Your task to perform on an android device: turn off location history Image 0: 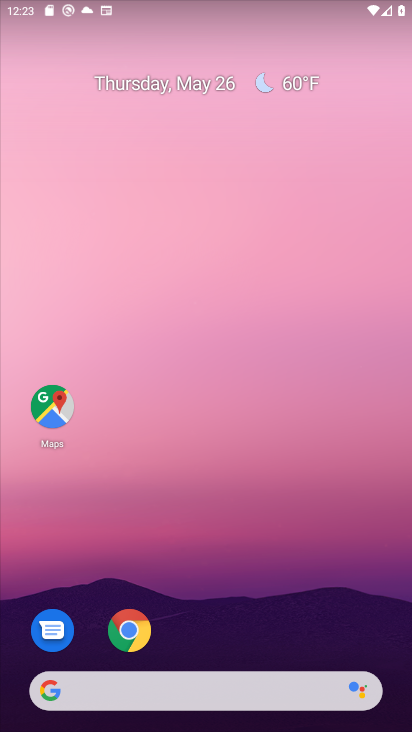
Step 0: drag from (314, 585) to (244, 143)
Your task to perform on an android device: turn off location history Image 1: 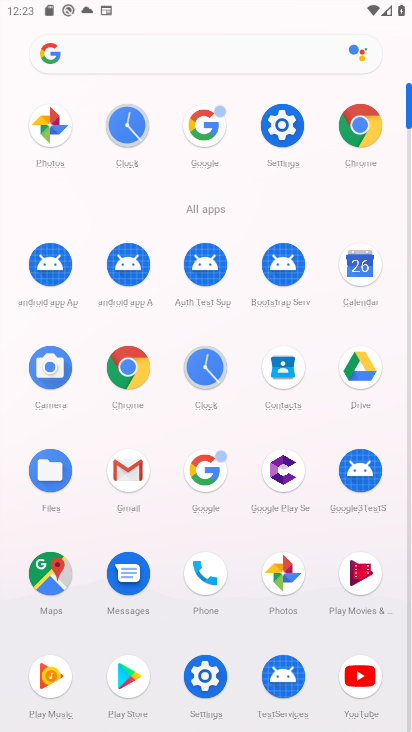
Step 1: click (274, 139)
Your task to perform on an android device: turn off location history Image 2: 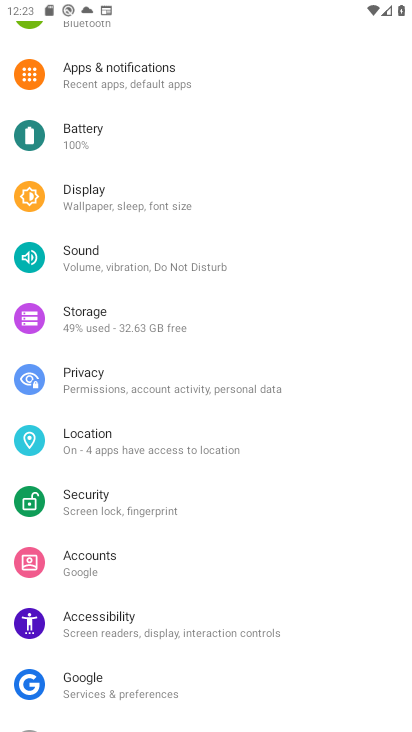
Step 2: click (117, 448)
Your task to perform on an android device: turn off location history Image 3: 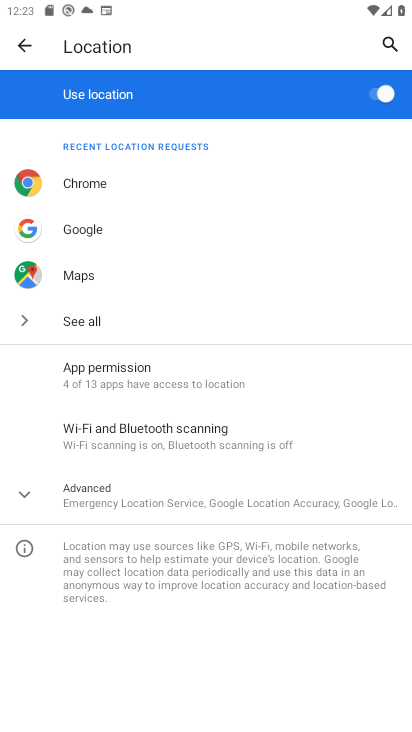
Step 3: drag from (175, 609) to (174, 183)
Your task to perform on an android device: turn off location history Image 4: 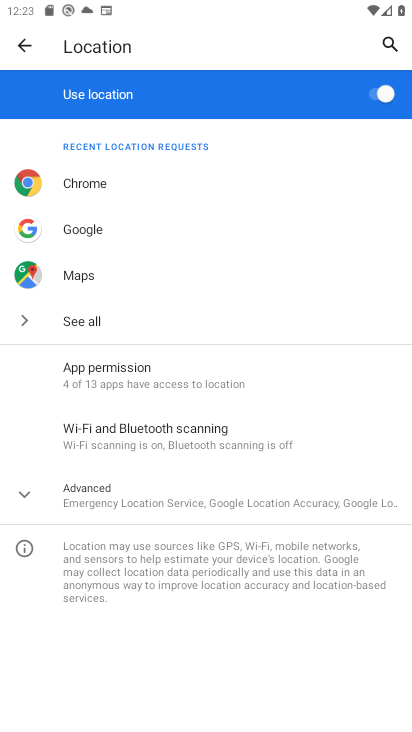
Step 4: click (86, 498)
Your task to perform on an android device: turn off location history Image 5: 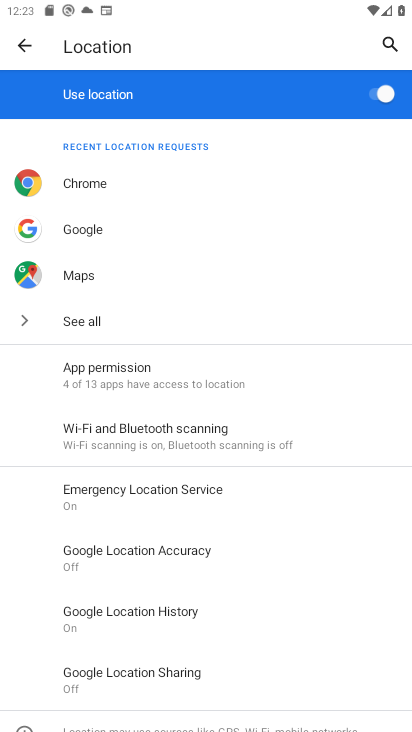
Step 5: drag from (225, 603) to (262, 308)
Your task to perform on an android device: turn off location history Image 6: 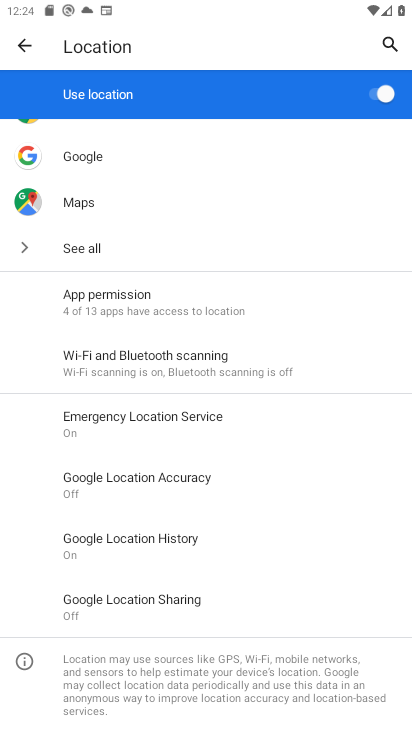
Step 6: click (148, 556)
Your task to perform on an android device: turn off location history Image 7: 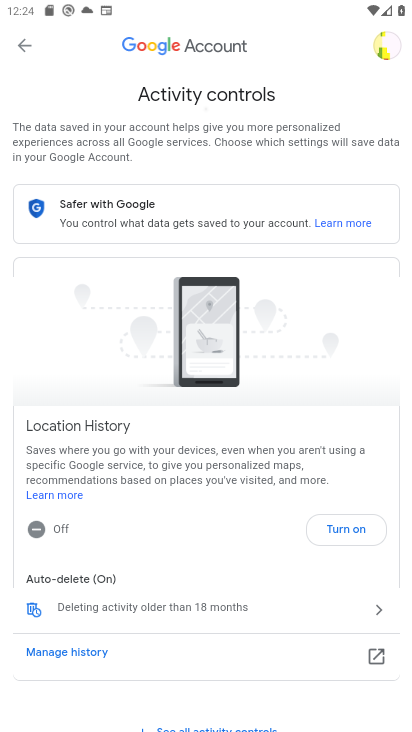
Step 7: task complete